Your task to perform on an android device: Open maps Image 0: 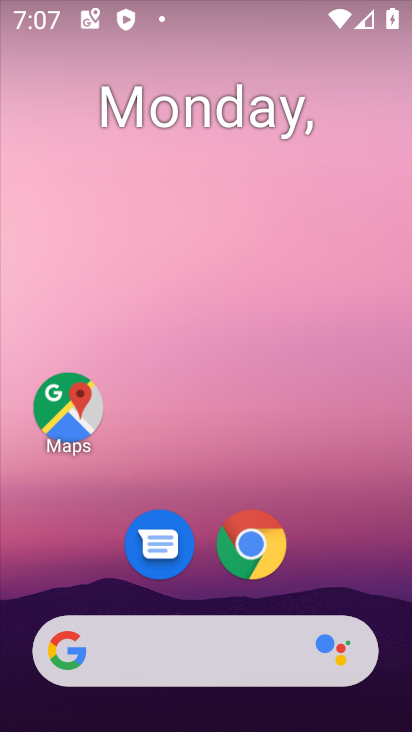
Step 0: click (65, 406)
Your task to perform on an android device: Open maps Image 1: 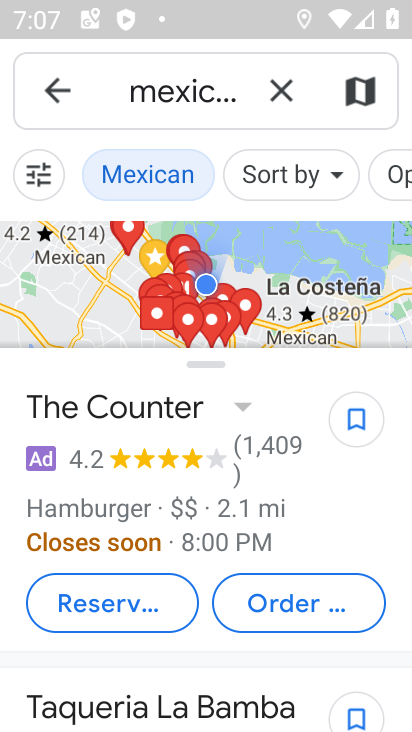
Step 1: task complete